Your task to perform on an android device: turn off notifications in google photos Image 0: 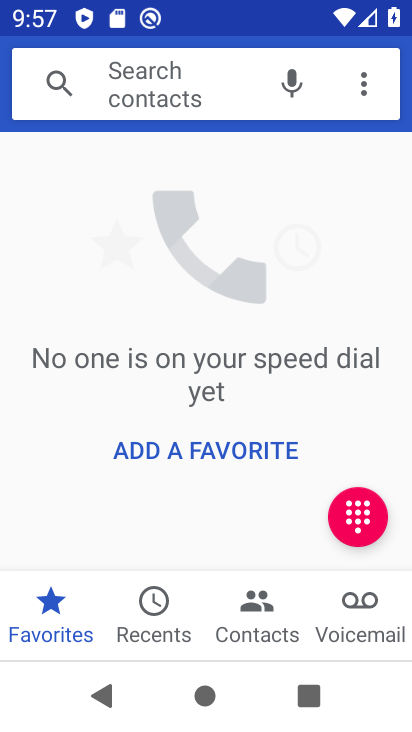
Step 0: press back button
Your task to perform on an android device: turn off notifications in google photos Image 1: 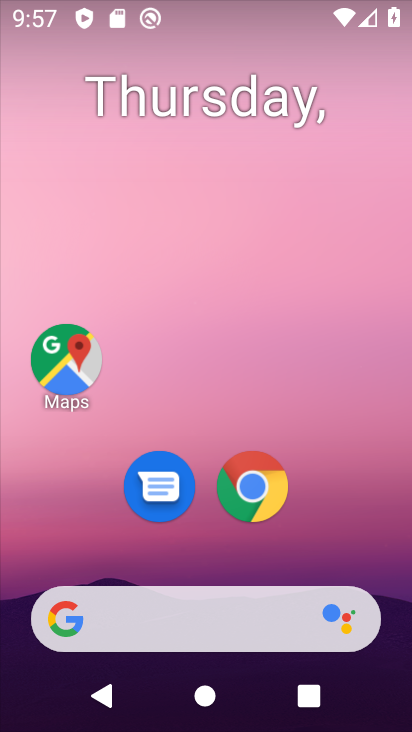
Step 1: drag from (208, 545) to (278, 12)
Your task to perform on an android device: turn off notifications in google photos Image 2: 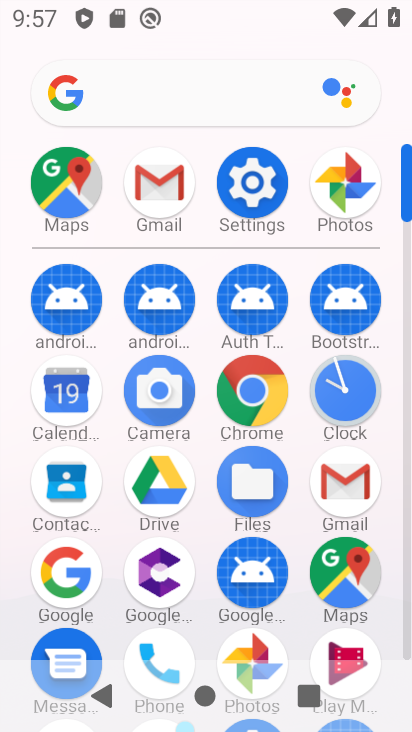
Step 2: click (260, 630)
Your task to perform on an android device: turn off notifications in google photos Image 3: 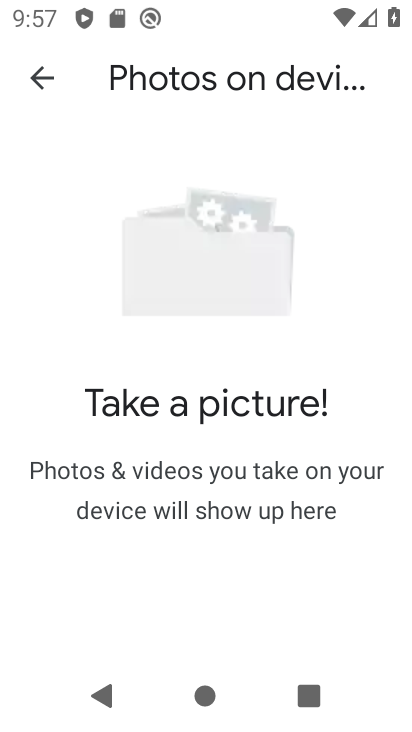
Step 3: click (48, 69)
Your task to perform on an android device: turn off notifications in google photos Image 4: 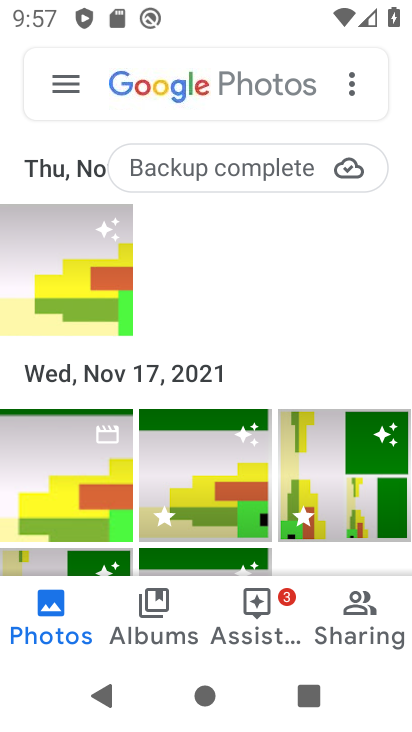
Step 4: click (61, 69)
Your task to perform on an android device: turn off notifications in google photos Image 5: 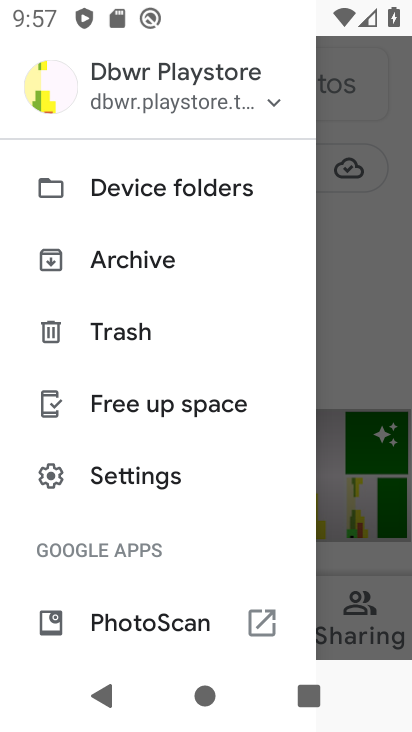
Step 5: click (127, 478)
Your task to perform on an android device: turn off notifications in google photos Image 6: 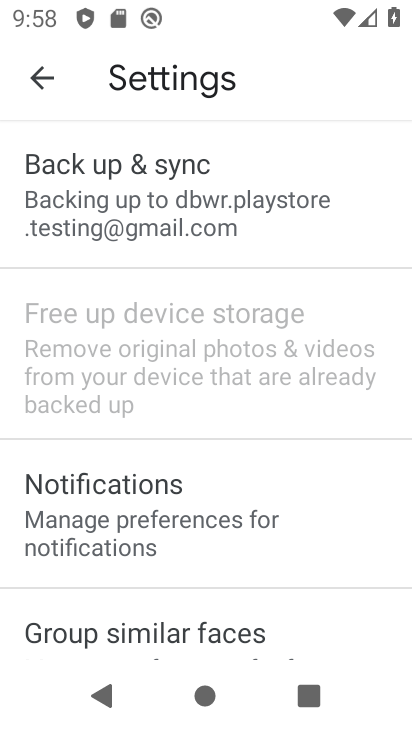
Step 6: click (165, 521)
Your task to perform on an android device: turn off notifications in google photos Image 7: 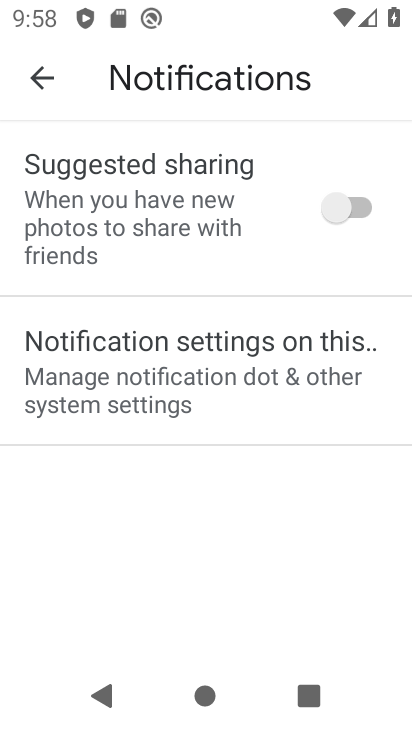
Step 7: click (212, 358)
Your task to perform on an android device: turn off notifications in google photos Image 8: 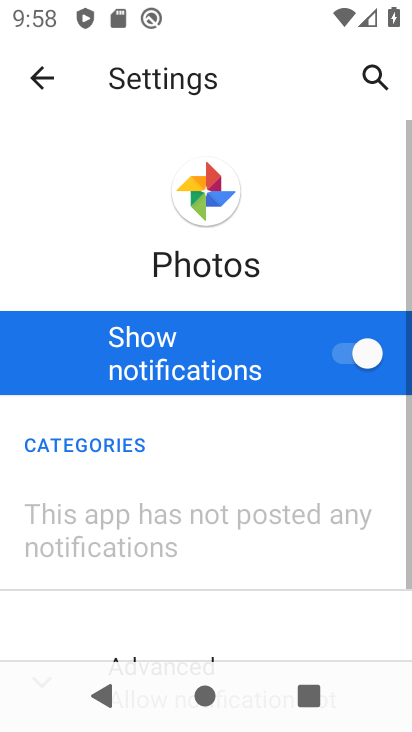
Step 8: click (376, 356)
Your task to perform on an android device: turn off notifications in google photos Image 9: 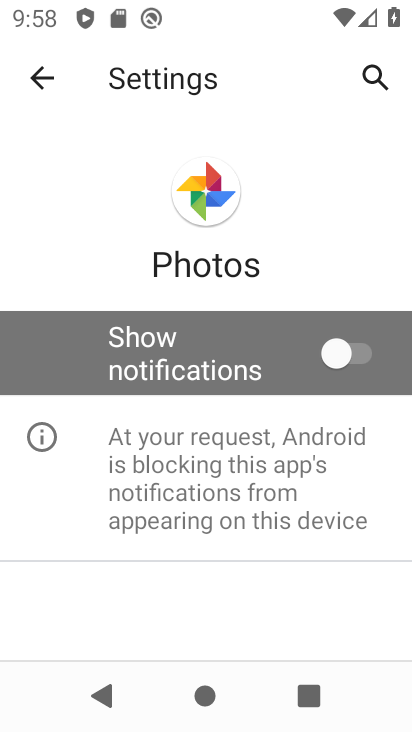
Step 9: task complete